Your task to perform on an android device: change your default location settings in chrome Image 0: 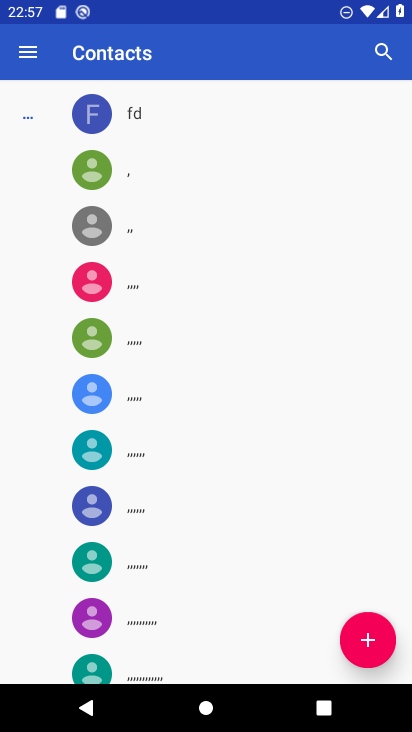
Step 0: press home button
Your task to perform on an android device: change your default location settings in chrome Image 1: 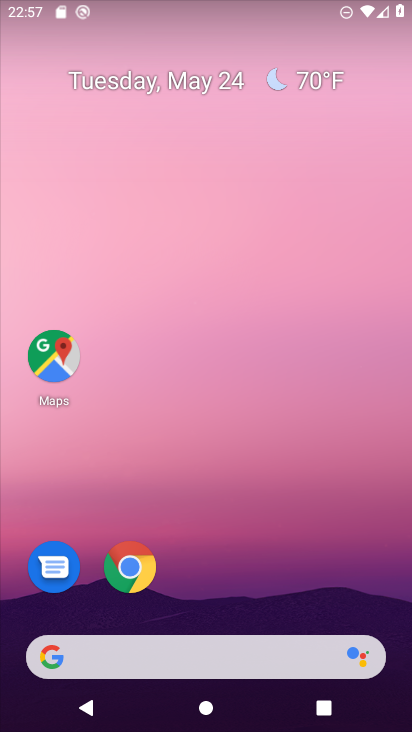
Step 1: click (128, 566)
Your task to perform on an android device: change your default location settings in chrome Image 2: 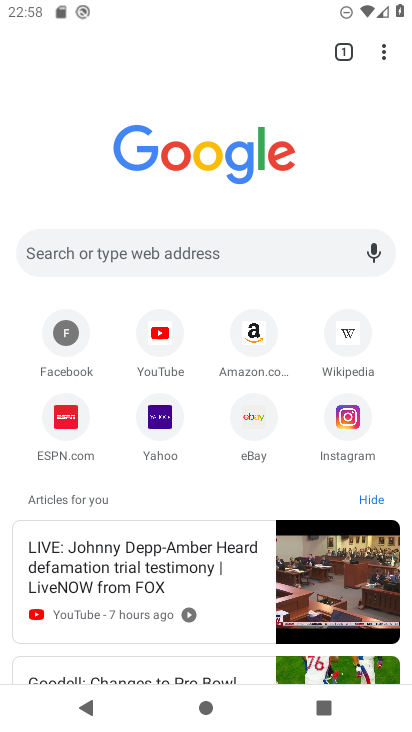
Step 2: click (383, 52)
Your task to perform on an android device: change your default location settings in chrome Image 3: 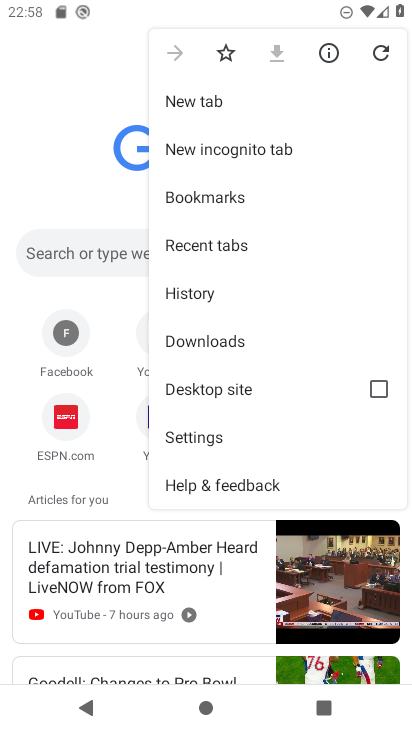
Step 3: click (236, 434)
Your task to perform on an android device: change your default location settings in chrome Image 4: 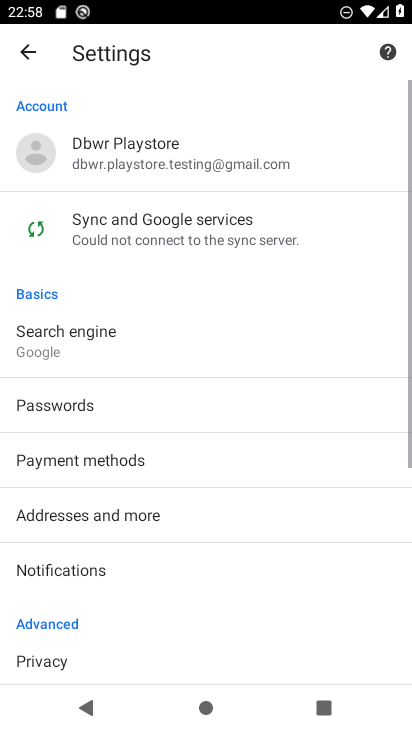
Step 4: drag from (165, 642) to (140, 244)
Your task to perform on an android device: change your default location settings in chrome Image 5: 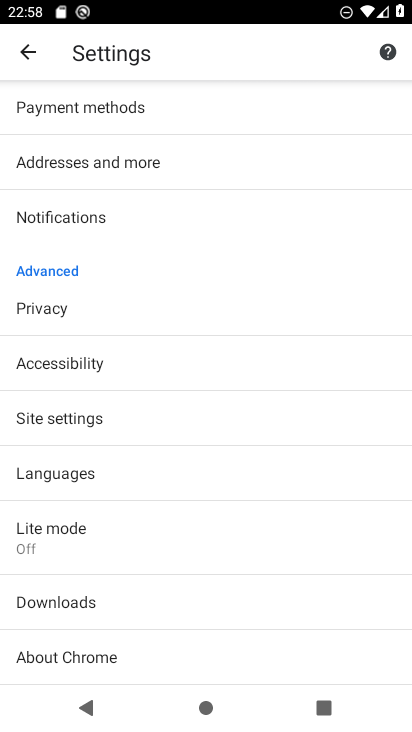
Step 5: click (87, 421)
Your task to perform on an android device: change your default location settings in chrome Image 6: 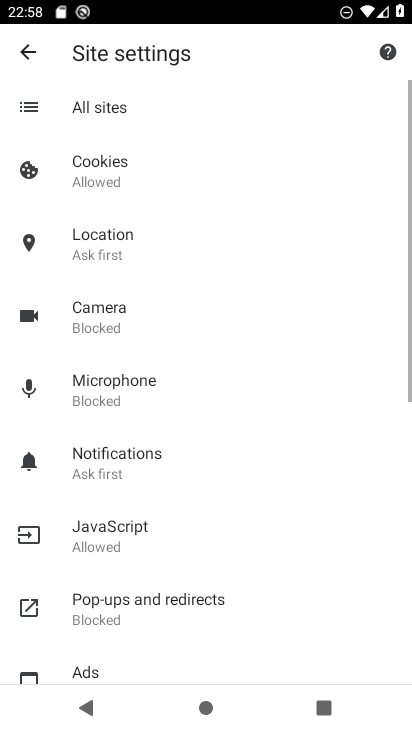
Step 6: click (135, 251)
Your task to perform on an android device: change your default location settings in chrome Image 7: 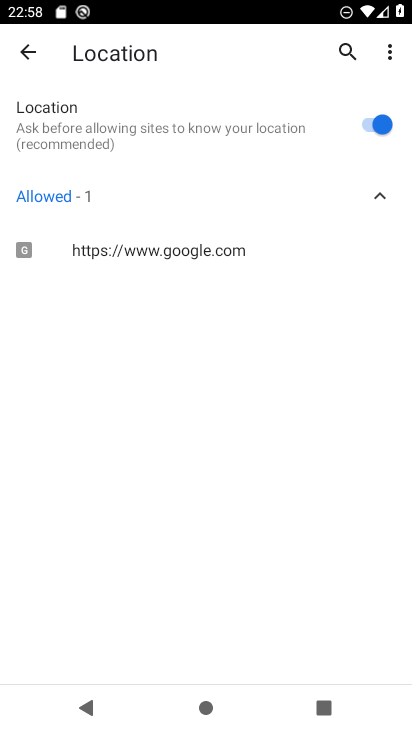
Step 7: click (377, 127)
Your task to perform on an android device: change your default location settings in chrome Image 8: 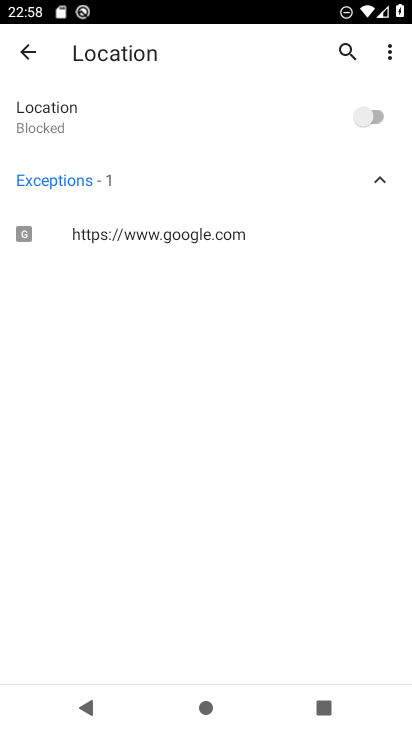
Step 8: task complete